Your task to perform on an android device: clear history in the chrome app Image 0: 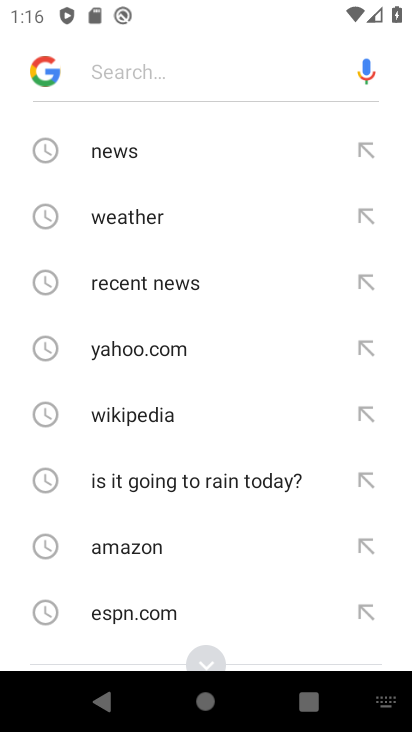
Step 0: press home button
Your task to perform on an android device: clear history in the chrome app Image 1: 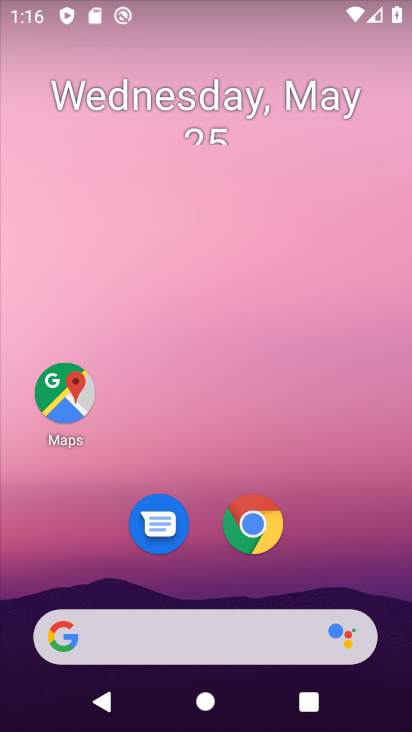
Step 1: drag from (201, 415) to (302, 0)
Your task to perform on an android device: clear history in the chrome app Image 2: 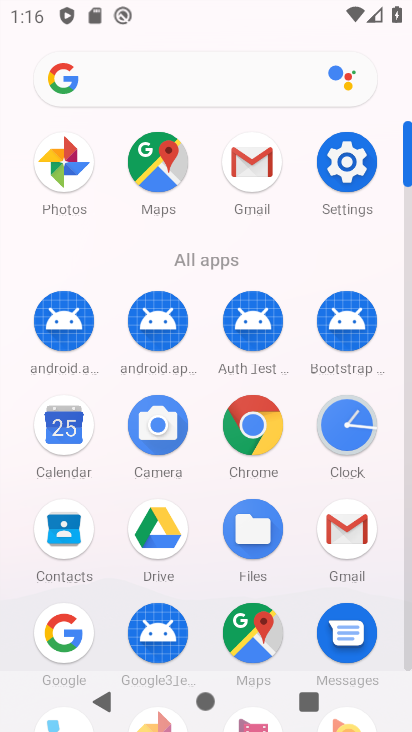
Step 2: click (249, 439)
Your task to perform on an android device: clear history in the chrome app Image 3: 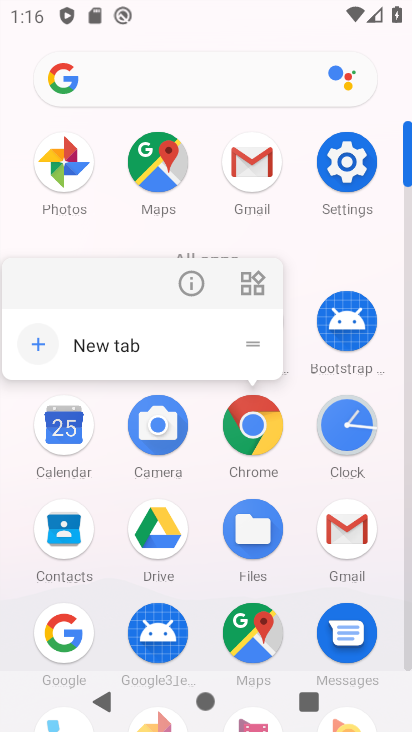
Step 3: click (251, 434)
Your task to perform on an android device: clear history in the chrome app Image 4: 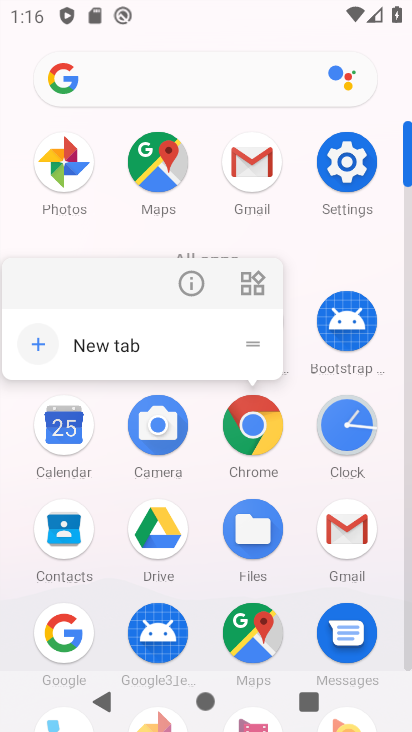
Step 4: click (252, 428)
Your task to perform on an android device: clear history in the chrome app Image 5: 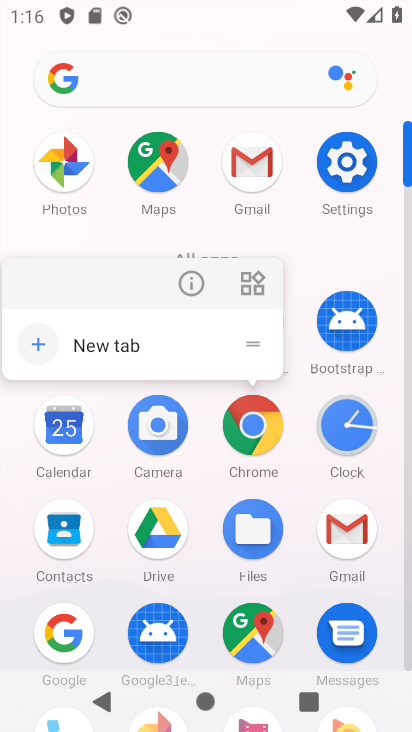
Step 5: click (252, 428)
Your task to perform on an android device: clear history in the chrome app Image 6: 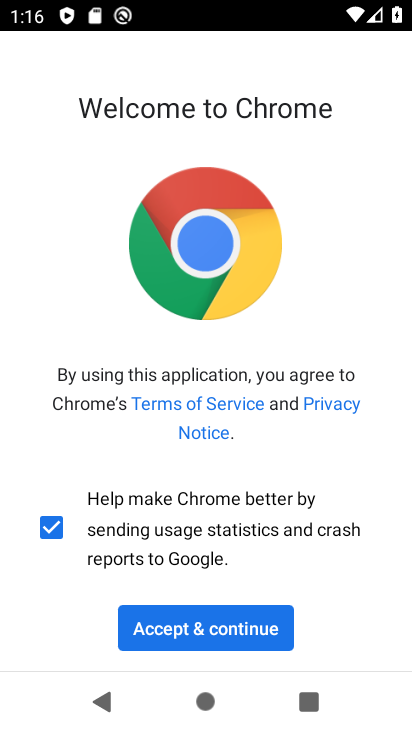
Step 6: click (255, 621)
Your task to perform on an android device: clear history in the chrome app Image 7: 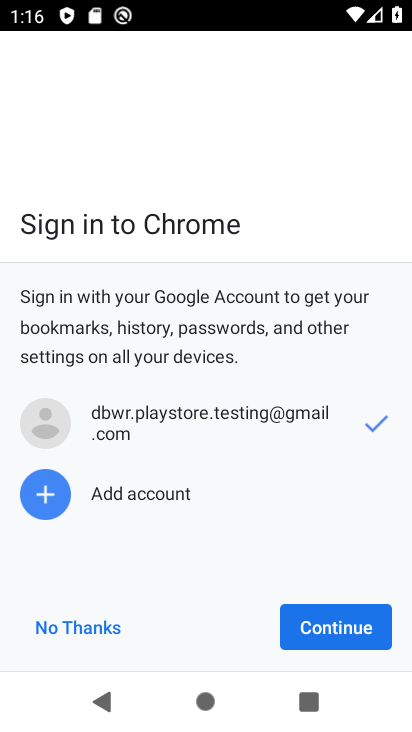
Step 7: click (301, 620)
Your task to perform on an android device: clear history in the chrome app Image 8: 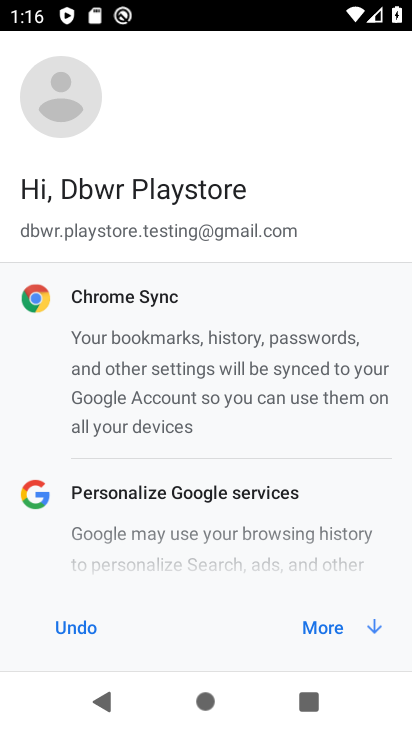
Step 8: click (310, 617)
Your task to perform on an android device: clear history in the chrome app Image 9: 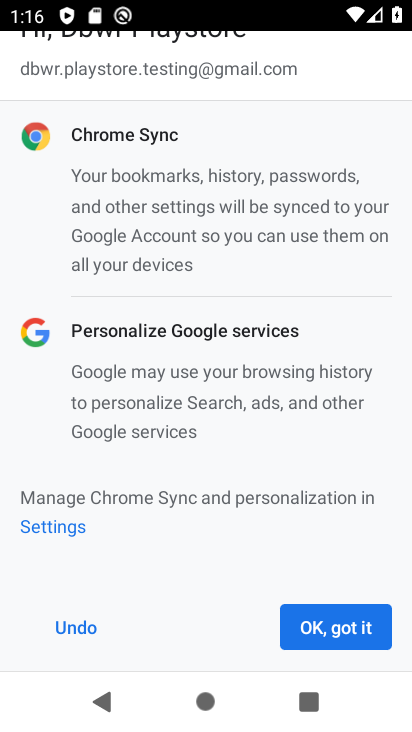
Step 9: click (320, 623)
Your task to perform on an android device: clear history in the chrome app Image 10: 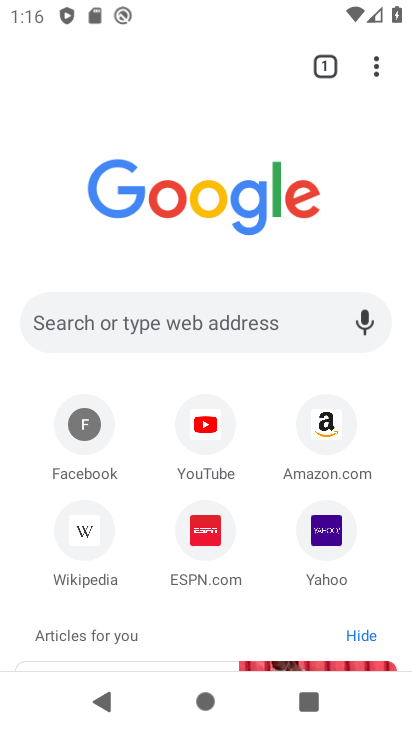
Step 10: click (373, 60)
Your task to perform on an android device: clear history in the chrome app Image 11: 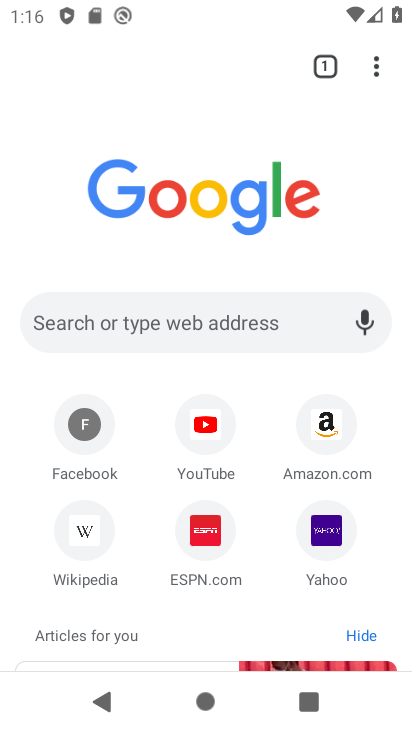
Step 11: click (373, 59)
Your task to perform on an android device: clear history in the chrome app Image 12: 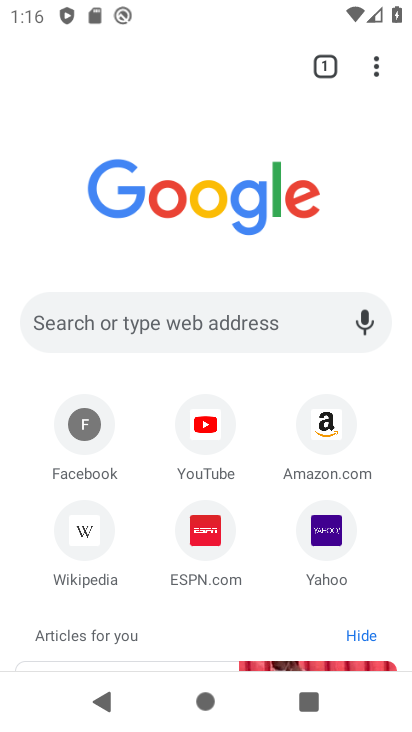
Step 12: click (373, 59)
Your task to perform on an android device: clear history in the chrome app Image 13: 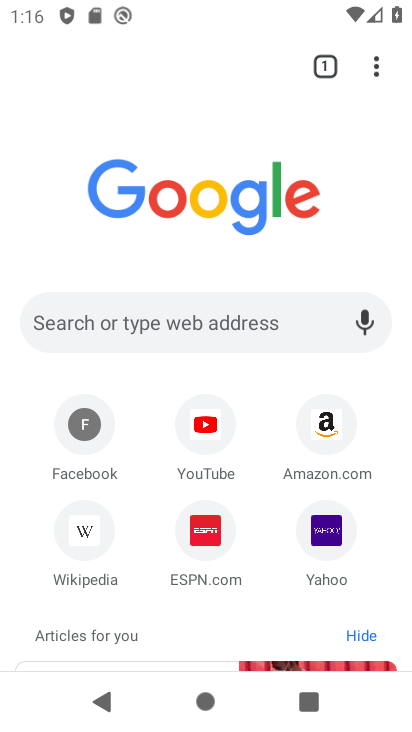
Step 13: click (373, 59)
Your task to perform on an android device: clear history in the chrome app Image 14: 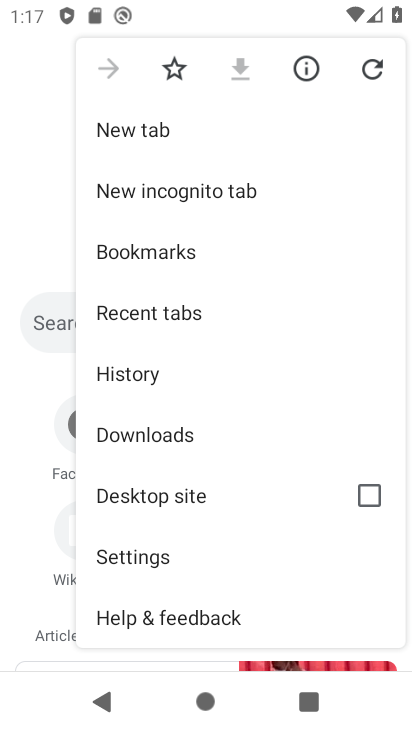
Step 14: click (198, 374)
Your task to perform on an android device: clear history in the chrome app Image 15: 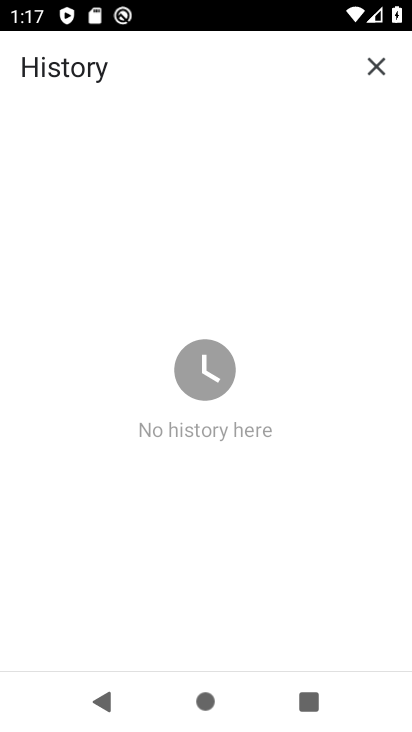
Step 15: task complete